Your task to perform on an android device: check battery use Image 0: 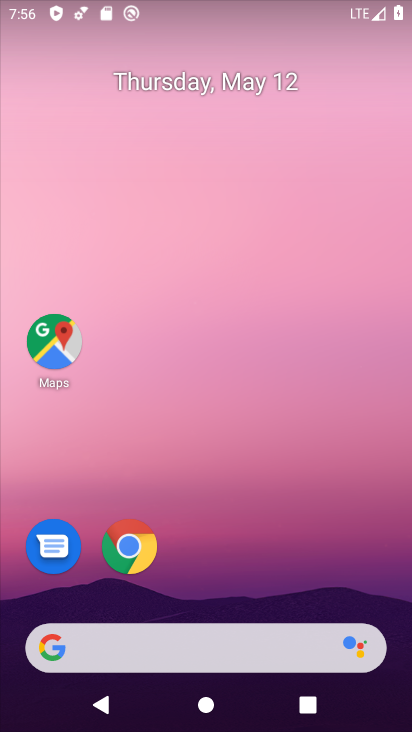
Step 0: drag from (218, 460) to (280, 74)
Your task to perform on an android device: check battery use Image 1: 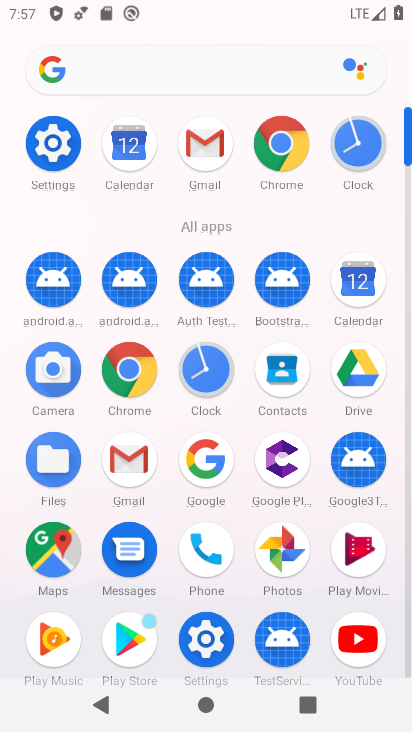
Step 1: click (54, 142)
Your task to perform on an android device: check battery use Image 2: 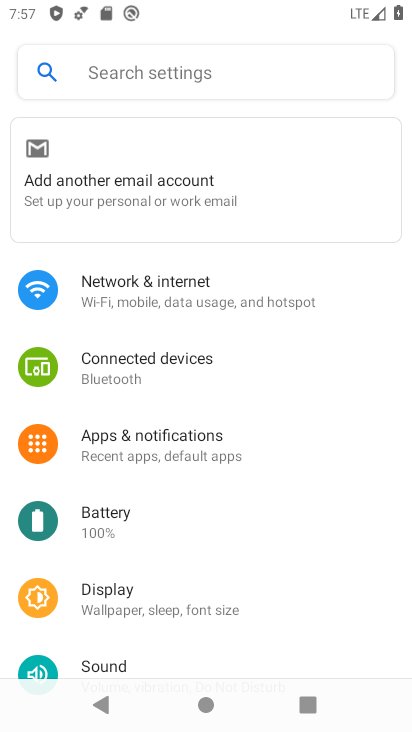
Step 2: click (116, 529)
Your task to perform on an android device: check battery use Image 3: 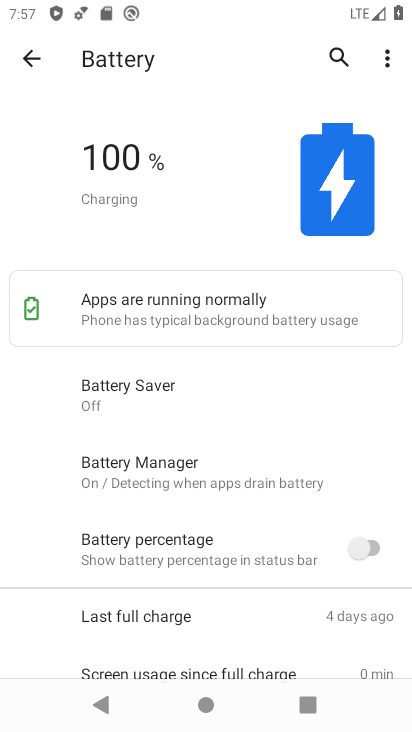
Step 3: click (384, 59)
Your task to perform on an android device: check battery use Image 4: 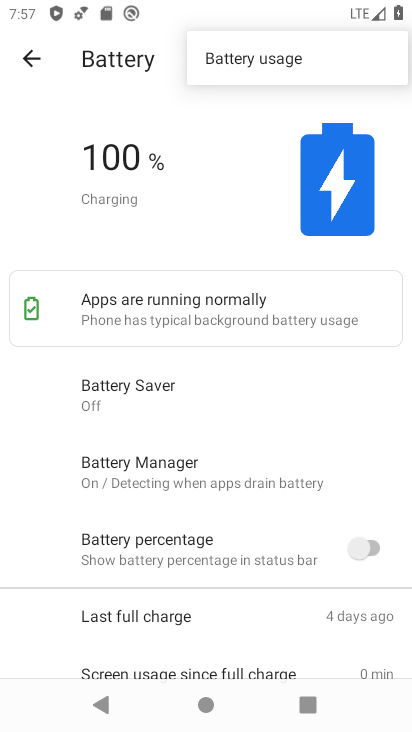
Step 4: click (305, 65)
Your task to perform on an android device: check battery use Image 5: 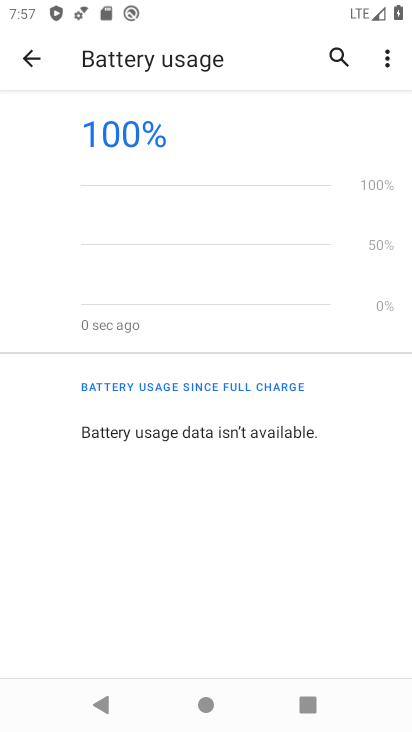
Step 5: task complete